Your task to perform on an android device: clear history in the chrome app Image 0: 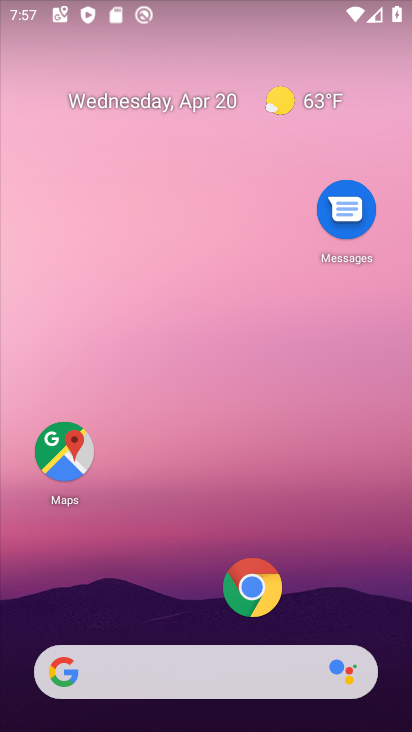
Step 0: drag from (168, 641) to (267, 227)
Your task to perform on an android device: clear history in the chrome app Image 1: 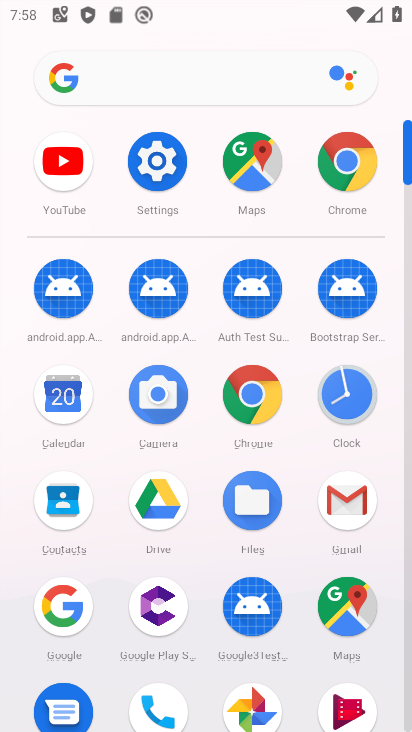
Step 1: click (336, 171)
Your task to perform on an android device: clear history in the chrome app Image 2: 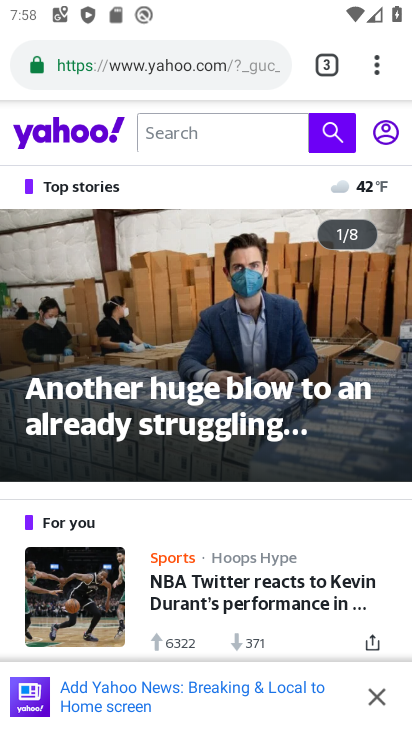
Step 2: click (369, 73)
Your task to perform on an android device: clear history in the chrome app Image 3: 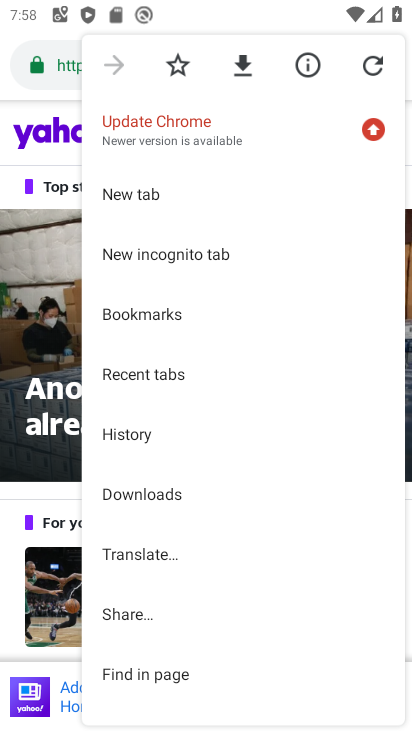
Step 3: click (130, 431)
Your task to perform on an android device: clear history in the chrome app Image 4: 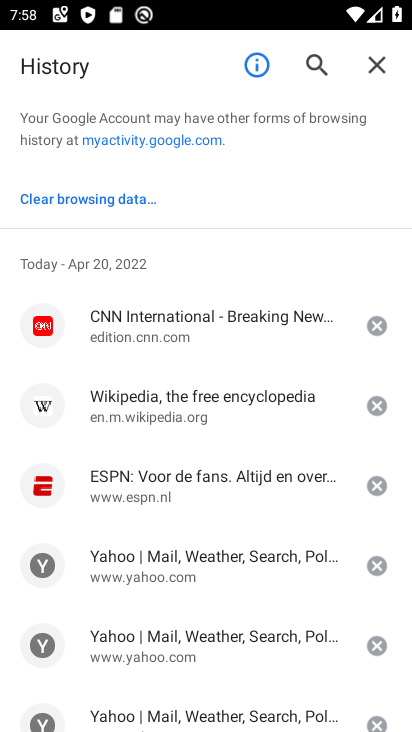
Step 4: click (114, 200)
Your task to perform on an android device: clear history in the chrome app Image 5: 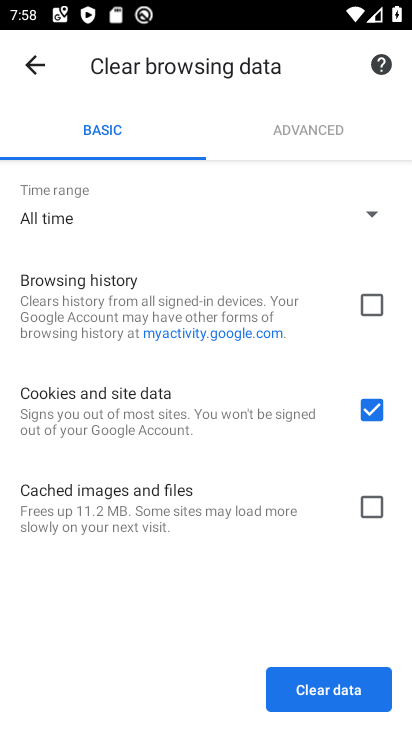
Step 5: click (374, 300)
Your task to perform on an android device: clear history in the chrome app Image 6: 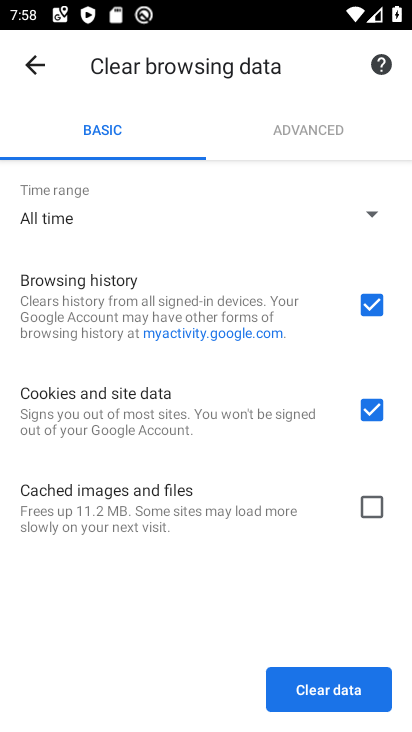
Step 6: click (369, 503)
Your task to perform on an android device: clear history in the chrome app Image 7: 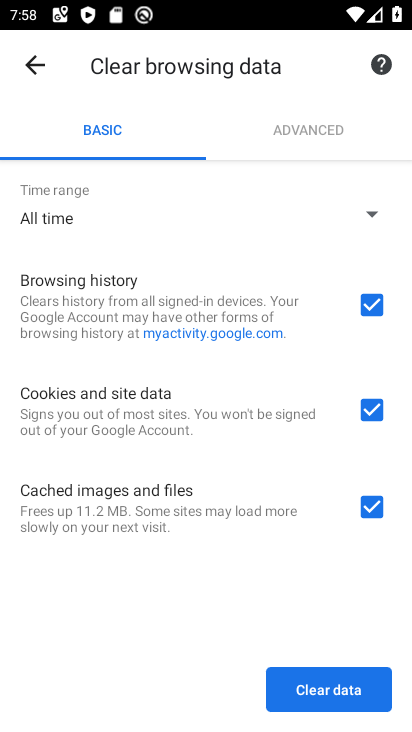
Step 7: click (325, 687)
Your task to perform on an android device: clear history in the chrome app Image 8: 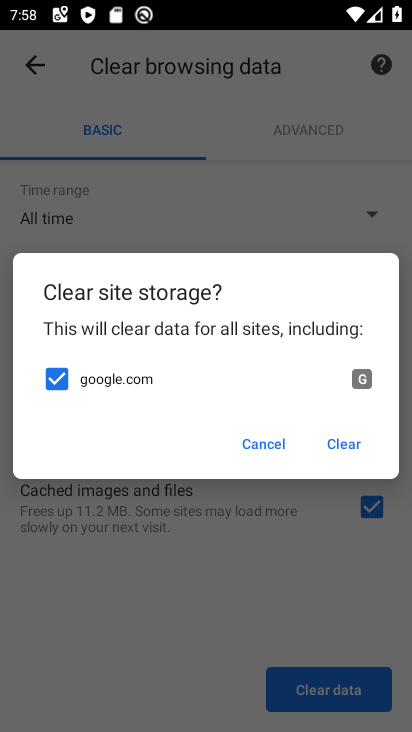
Step 8: click (337, 442)
Your task to perform on an android device: clear history in the chrome app Image 9: 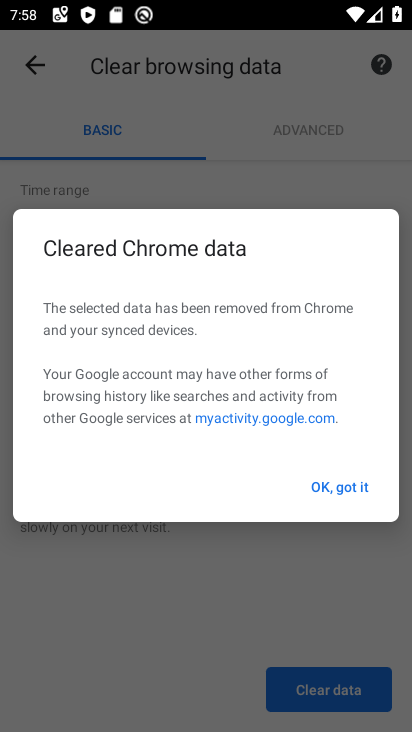
Step 9: click (358, 483)
Your task to perform on an android device: clear history in the chrome app Image 10: 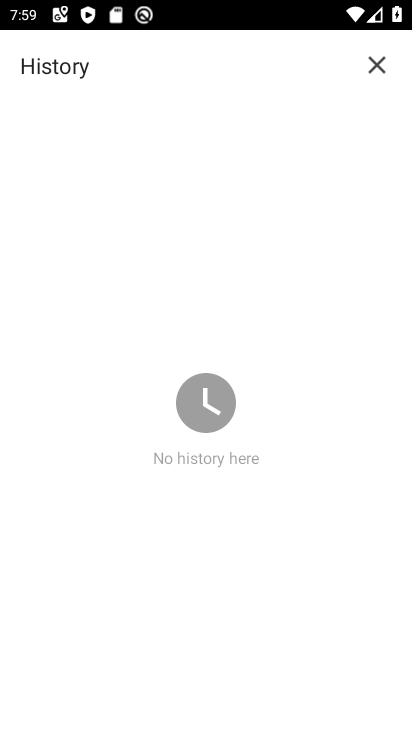
Step 10: task complete